Your task to perform on an android device: turn off javascript in the chrome app Image 0: 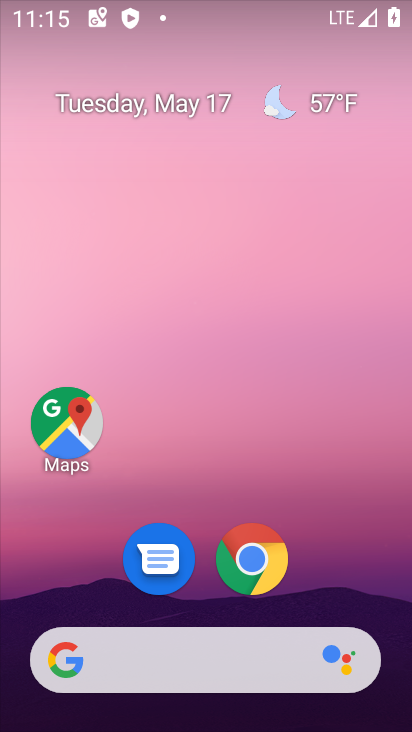
Step 0: click (288, 579)
Your task to perform on an android device: turn off javascript in the chrome app Image 1: 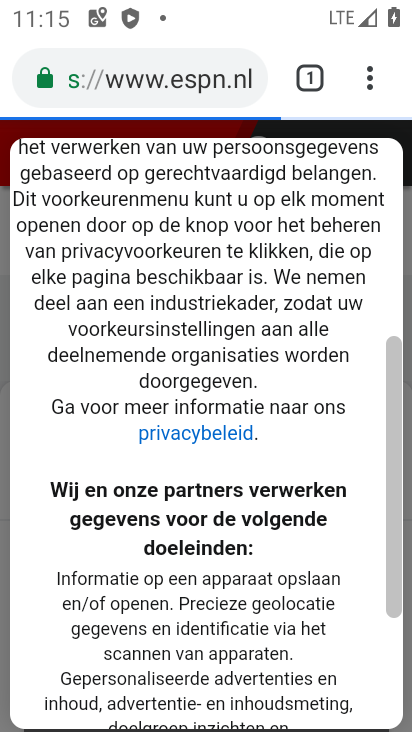
Step 1: click (368, 80)
Your task to perform on an android device: turn off javascript in the chrome app Image 2: 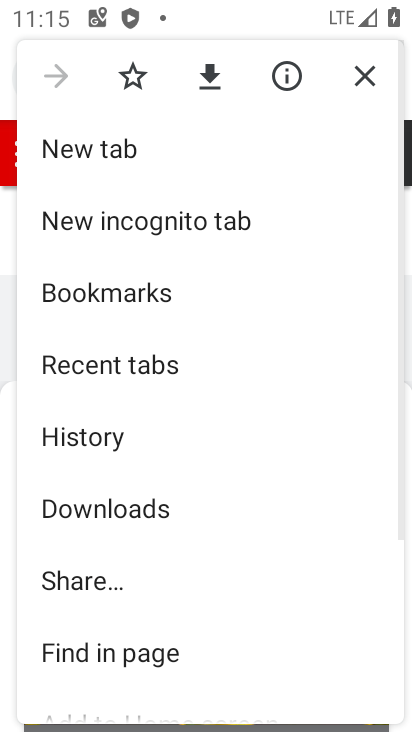
Step 2: drag from (206, 684) to (176, 229)
Your task to perform on an android device: turn off javascript in the chrome app Image 3: 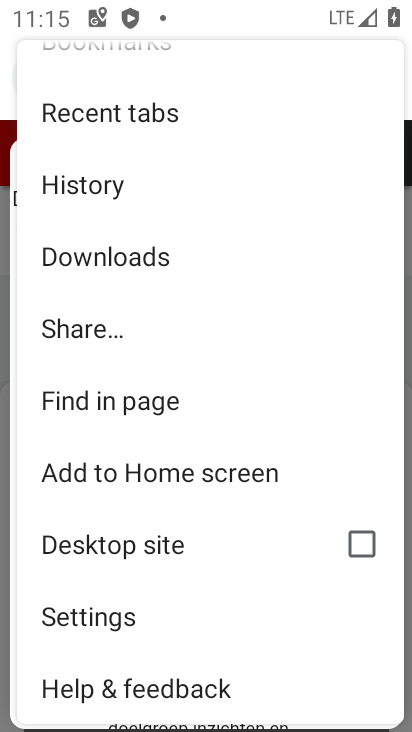
Step 3: click (117, 612)
Your task to perform on an android device: turn off javascript in the chrome app Image 4: 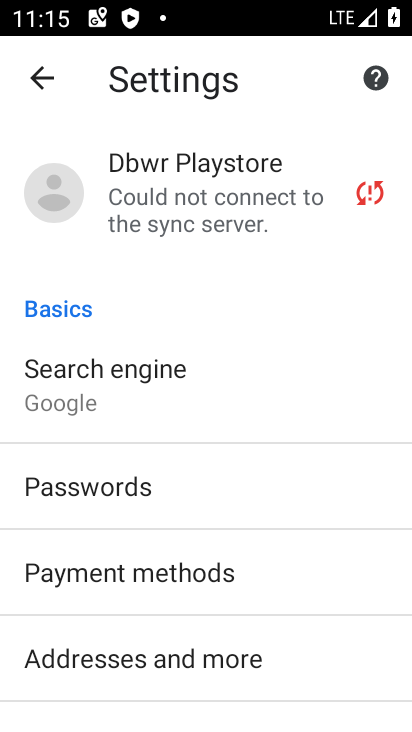
Step 4: drag from (188, 630) to (165, 98)
Your task to perform on an android device: turn off javascript in the chrome app Image 5: 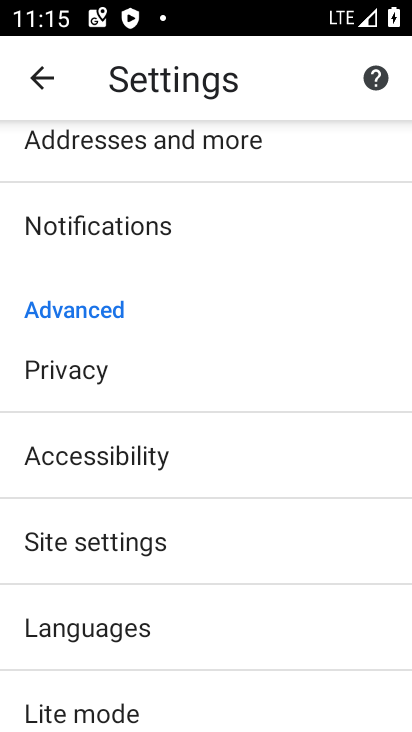
Step 5: click (133, 560)
Your task to perform on an android device: turn off javascript in the chrome app Image 6: 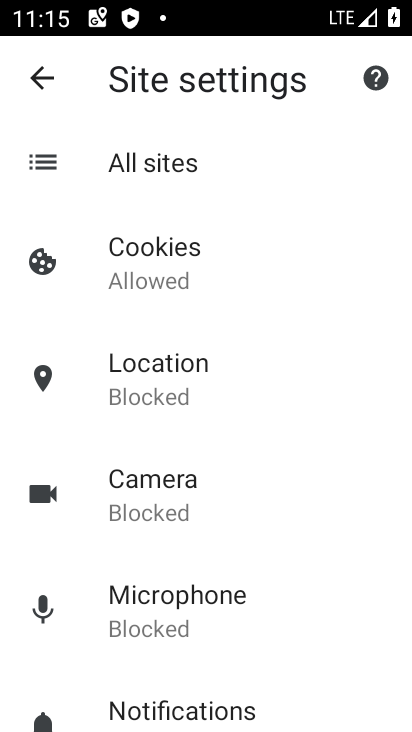
Step 6: drag from (170, 626) to (173, 299)
Your task to perform on an android device: turn off javascript in the chrome app Image 7: 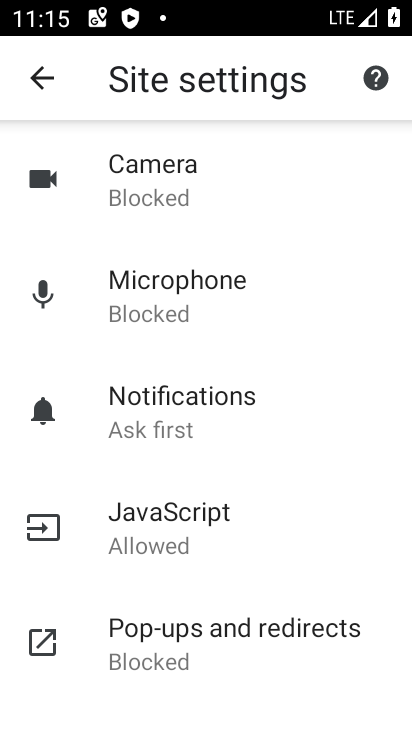
Step 7: click (175, 516)
Your task to perform on an android device: turn off javascript in the chrome app Image 8: 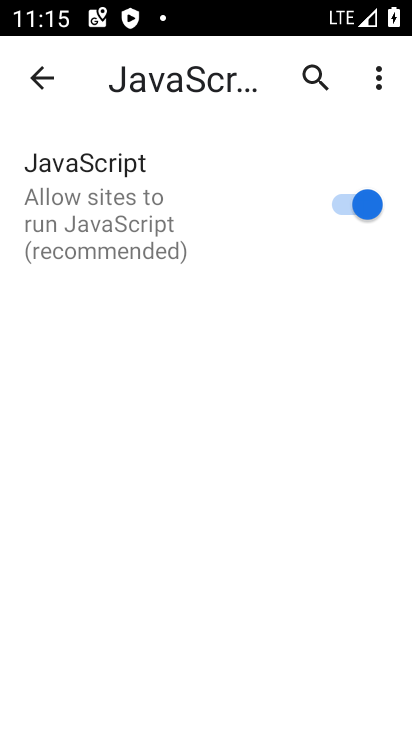
Step 8: click (343, 211)
Your task to perform on an android device: turn off javascript in the chrome app Image 9: 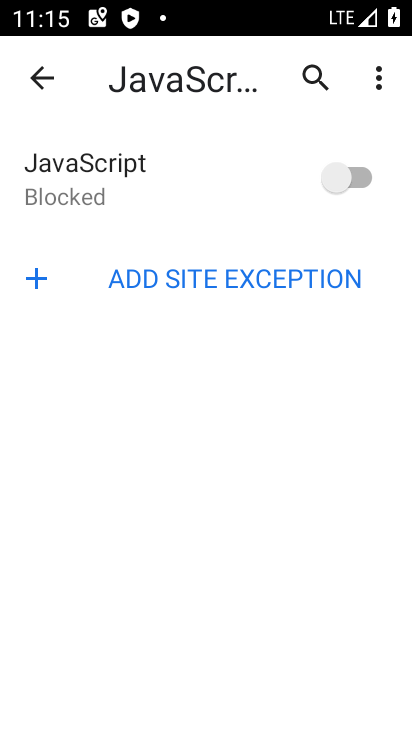
Step 9: task complete